Your task to perform on an android device: Open Youtube and go to "Your channel" Image 0: 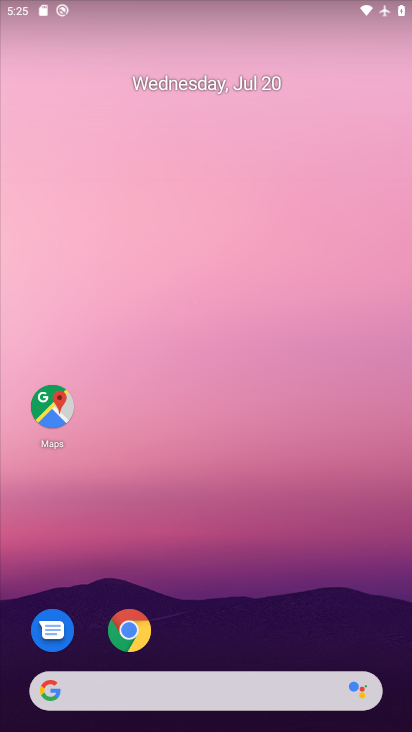
Step 0: press home button
Your task to perform on an android device: Open Youtube and go to "Your channel" Image 1: 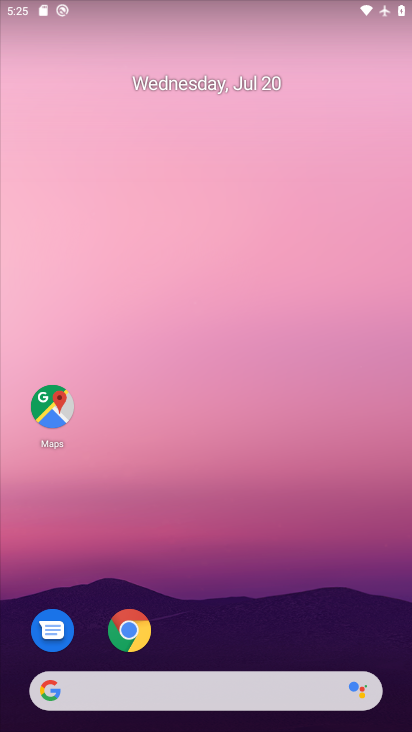
Step 1: drag from (250, 662) to (222, 58)
Your task to perform on an android device: Open Youtube and go to "Your channel" Image 2: 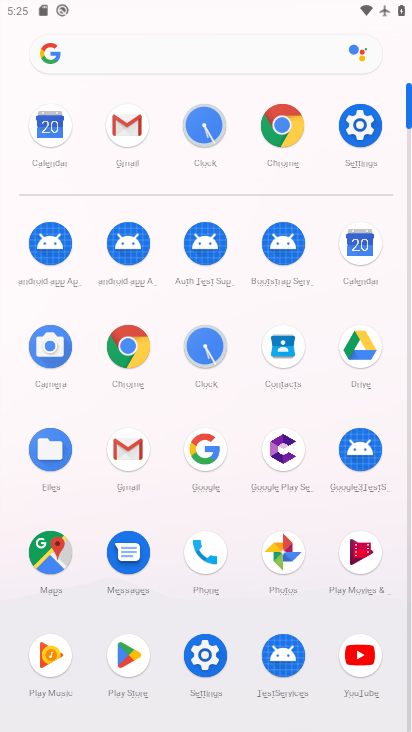
Step 2: click (353, 654)
Your task to perform on an android device: Open Youtube and go to "Your channel" Image 3: 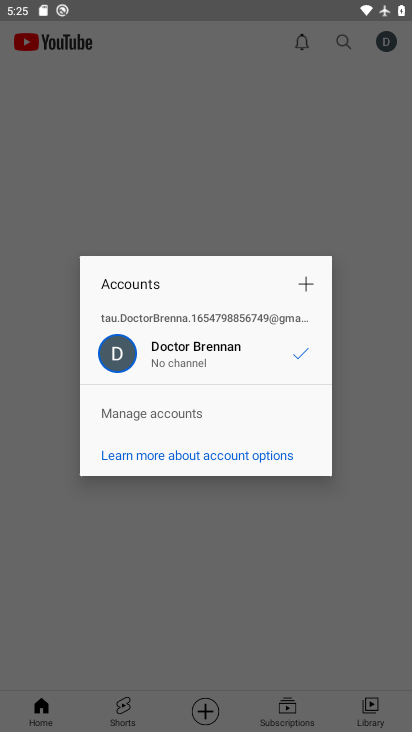
Step 3: press back button
Your task to perform on an android device: Open Youtube and go to "Your channel" Image 4: 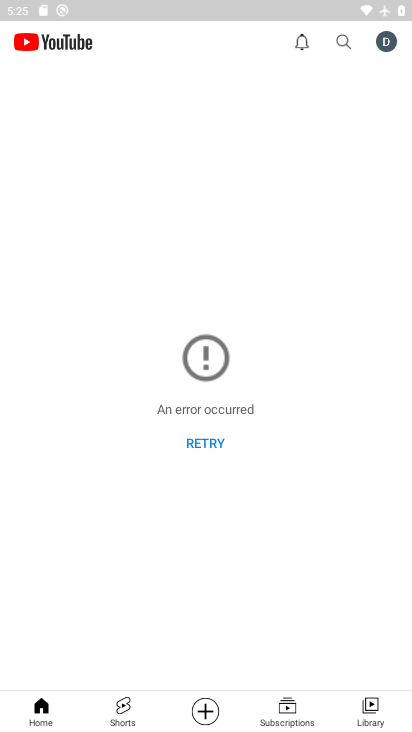
Step 4: click (383, 86)
Your task to perform on an android device: Open Youtube and go to "Your channel" Image 5: 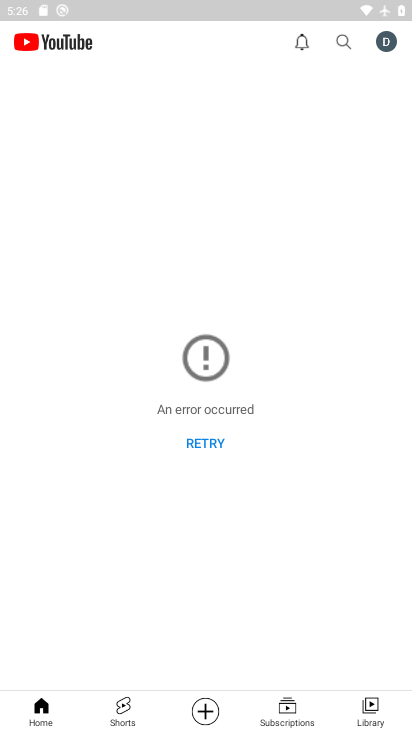
Step 5: click (387, 46)
Your task to perform on an android device: Open Youtube and go to "Your channel" Image 6: 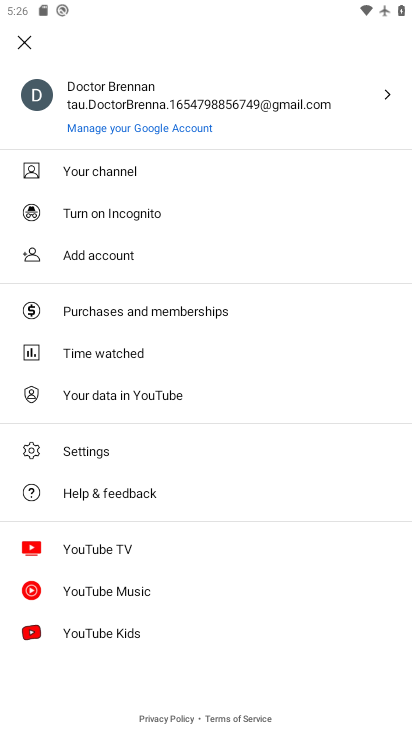
Step 6: click (102, 172)
Your task to perform on an android device: Open Youtube and go to "Your channel" Image 7: 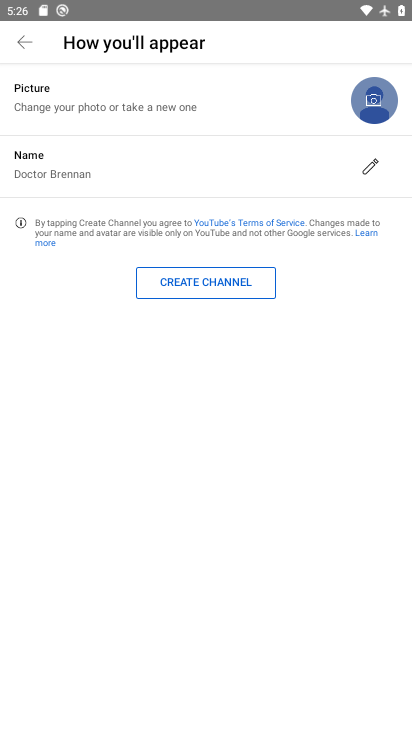
Step 7: task complete